Your task to perform on an android device: Go to Google Image 0: 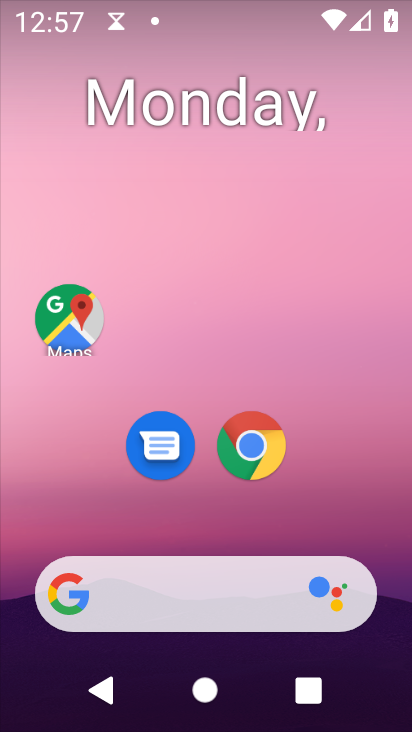
Step 0: drag from (351, 600) to (205, 219)
Your task to perform on an android device: Go to Google Image 1: 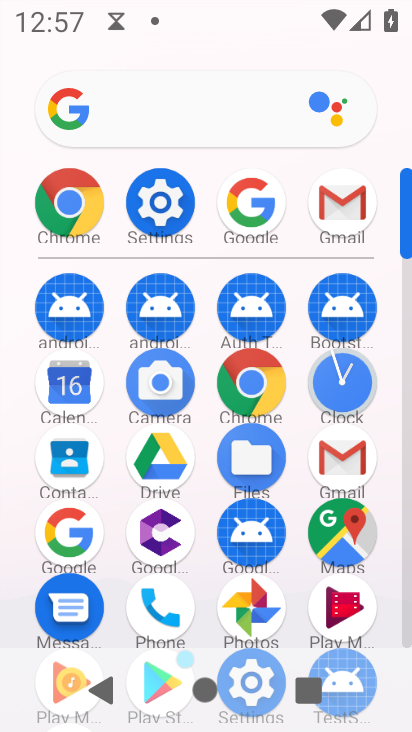
Step 1: click (249, 200)
Your task to perform on an android device: Go to Google Image 2: 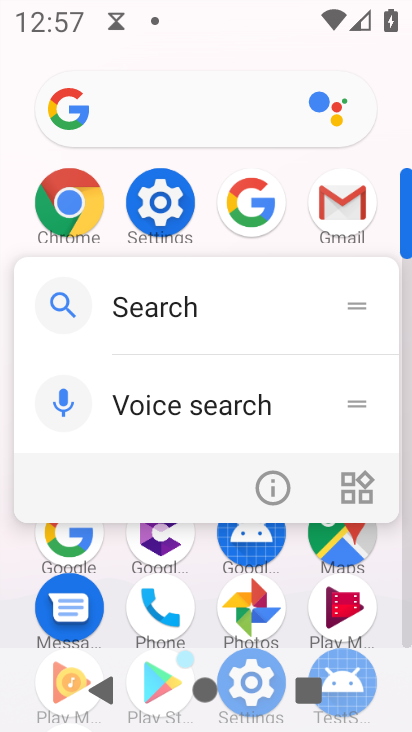
Step 2: click (259, 205)
Your task to perform on an android device: Go to Google Image 3: 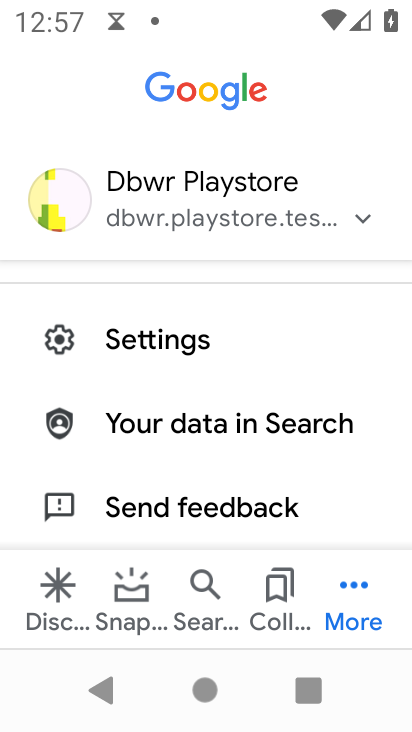
Step 3: drag from (238, 432) to (224, 149)
Your task to perform on an android device: Go to Google Image 4: 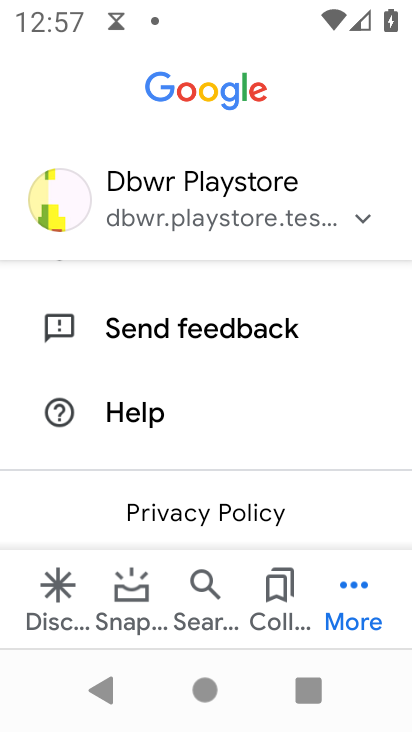
Step 4: drag from (262, 381) to (261, 64)
Your task to perform on an android device: Go to Google Image 5: 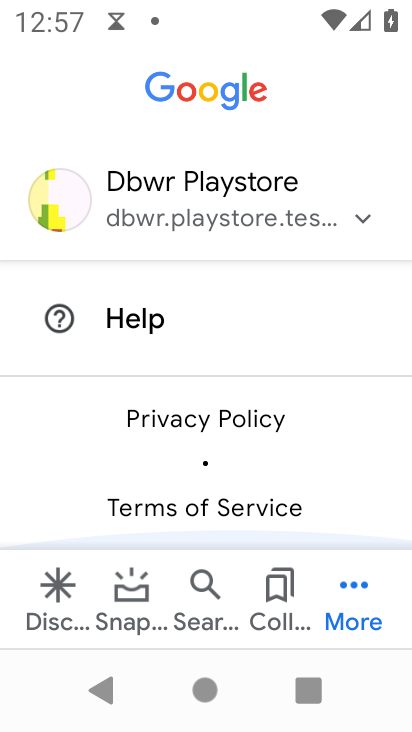
Step 5: drag from (255, 383) to (250, 66)
Your task to perform on an android device: Go to Google Image 6: 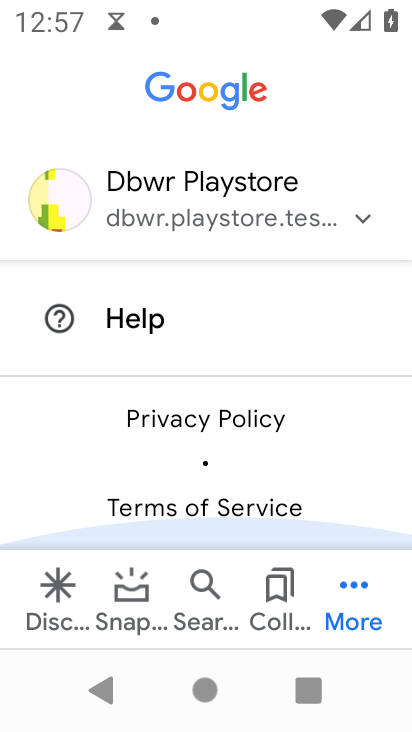
Step 6: drag from (253, 370) to (220, 81)
Your task to perform on an android device: Go to Google Image 7: 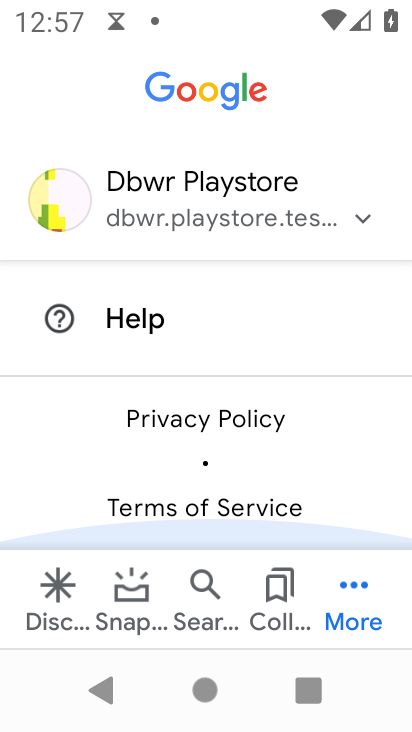
Step 7: drag from (239, 449) to (270, 112)
Your task to perform on an android device: Go to Google Image 8: 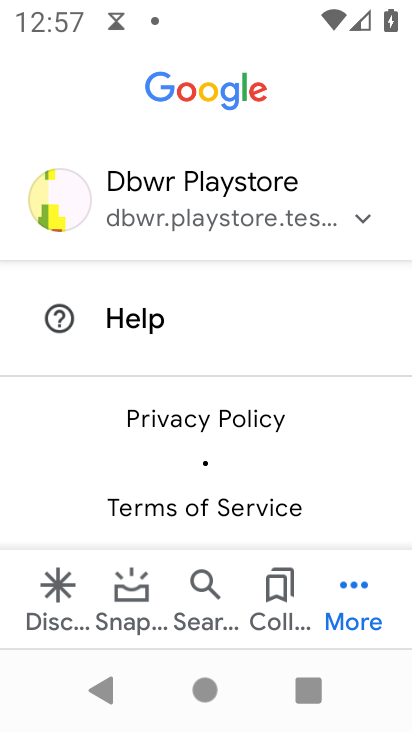
Step 8: press back button
Your task to perform on an android device: Go to Google Image 9: 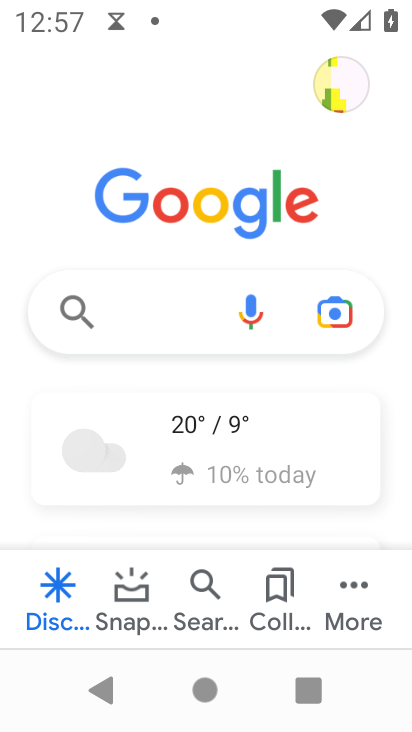
Step 9: click (347, 583)
Your task to perform on an android device: Go to Google Image 10: 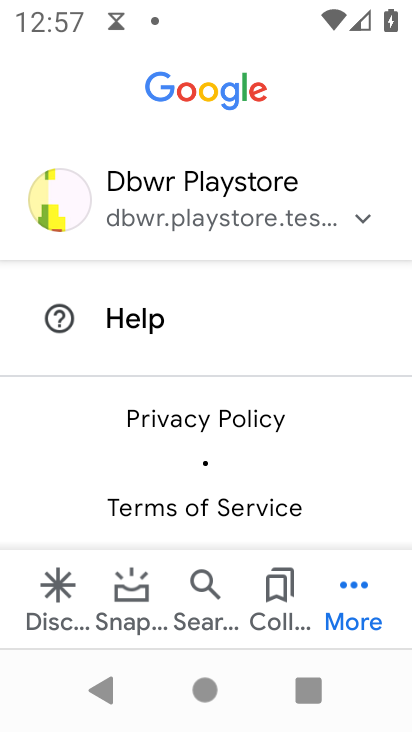
Step 10: click (348, 583)
Your task to perform on an android device: Go to Google Image 11: 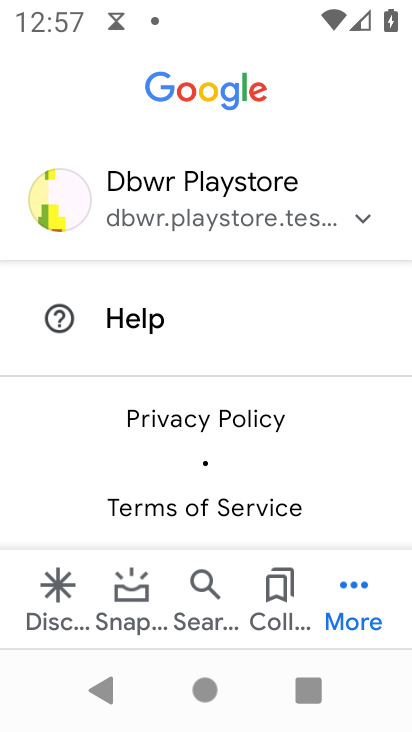
Step 11: click (349, 583)
Your task to perform on an android device: Go to Google Image 12: 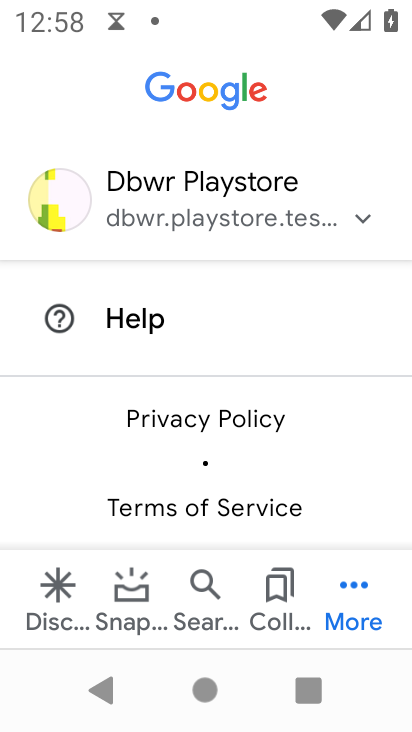
Step 12: drag from (248, 418) to (236, 273)
Your task to perform on an android device: Go to Google Image 13: 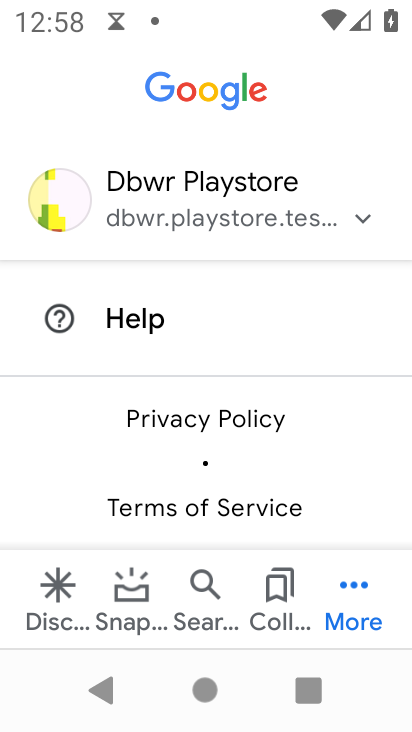
Step 13: drag from (276, 436) to (276, 114)
Your task to perform on an android device: Go to Google Image 14: 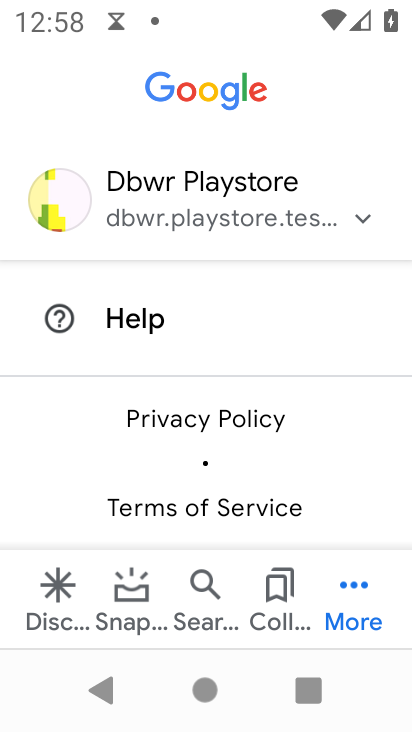
Step 14: click (228, 148)
Your task to perform on an android device: Go to Google Image 15: 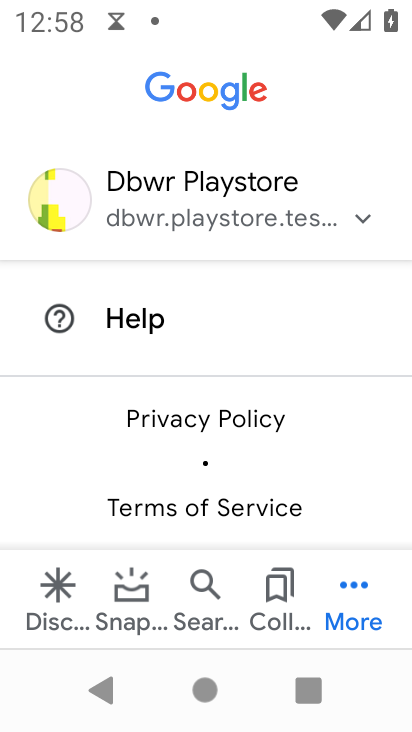
Step 15: drag from (239, 360) to (239, 41)
Your task to perform on an android device: Go to Google Image 16: 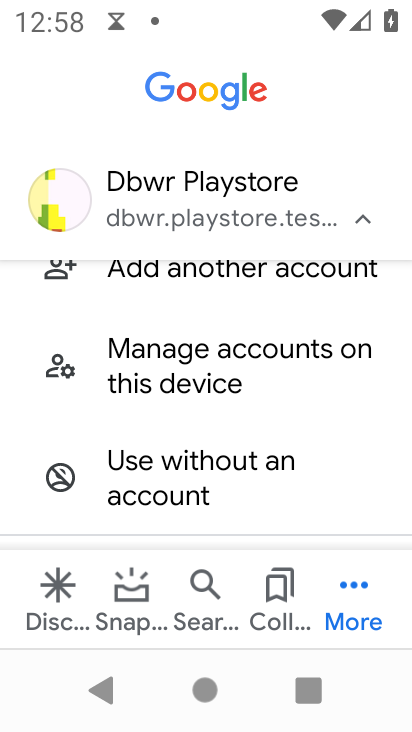
Step 16: drag from (217, 421) to (311, 24)
Your task to perform on an android device: Go to Google Image 17: 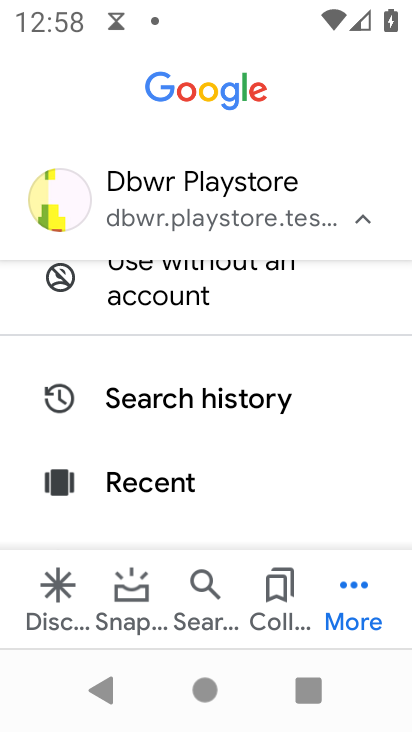
Step 17: drag from (253, 315) to (224, 117)
Your task to perform on an android device: Go to Google Image 18: 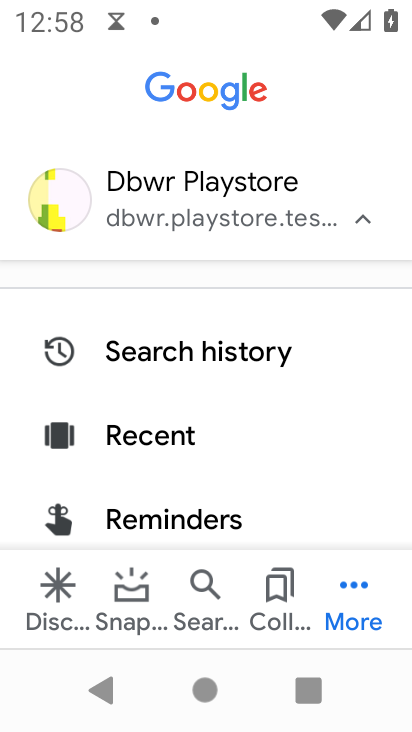
Step 18: drag from (217, 327) to (190, 24)
Your task to perform on an android device: Go to Google Image 19: 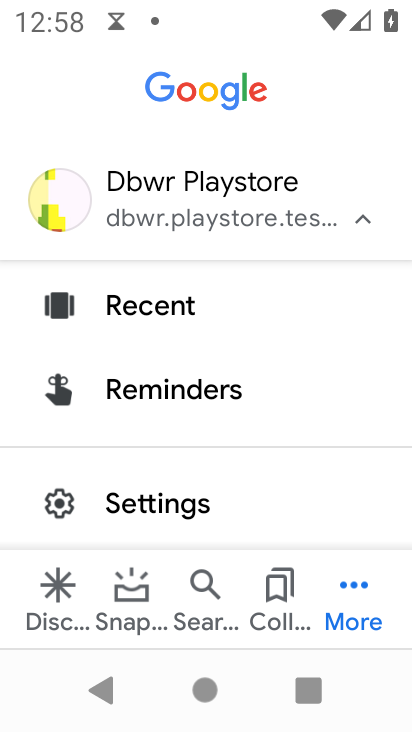
Step 19: drag from (177, 434) to (248, 93)
Your task to perform on an android device: Go to Google Image 20: 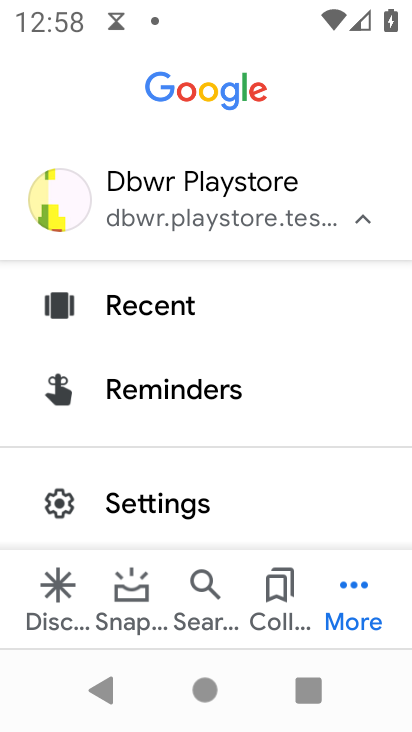
Step 20: drag from (337, 347) to (339, 95)
Your task to perform on an android device: Go to Google Image 21: 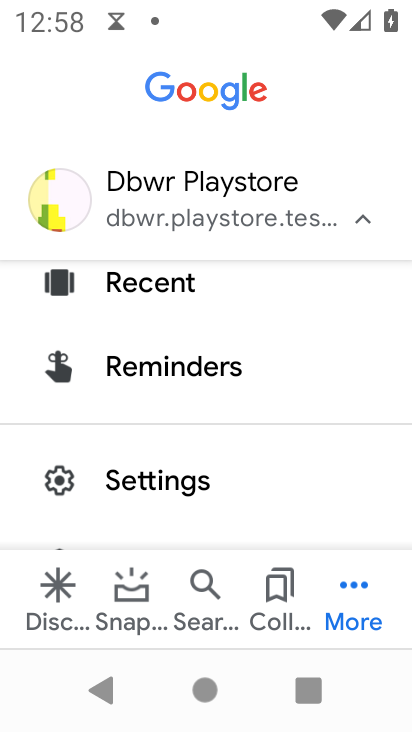
Step 21: drag from (259, 444) to (293, 135)
Your task to perform on an android device: Go to Google Image 22: 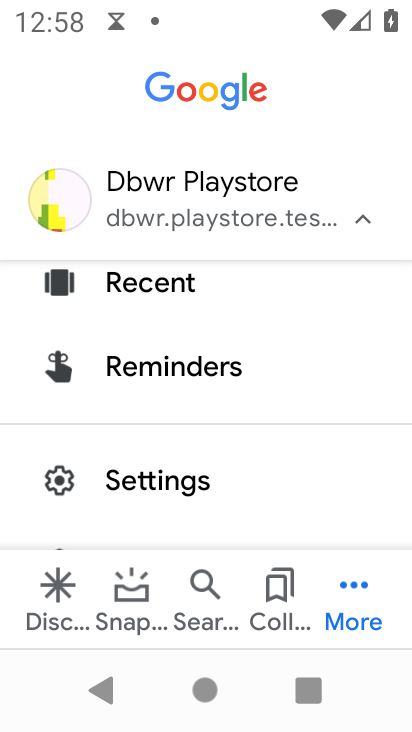
Step 22: click (164, 468)
Your task to perform on an android device: Go to Google Image 23: 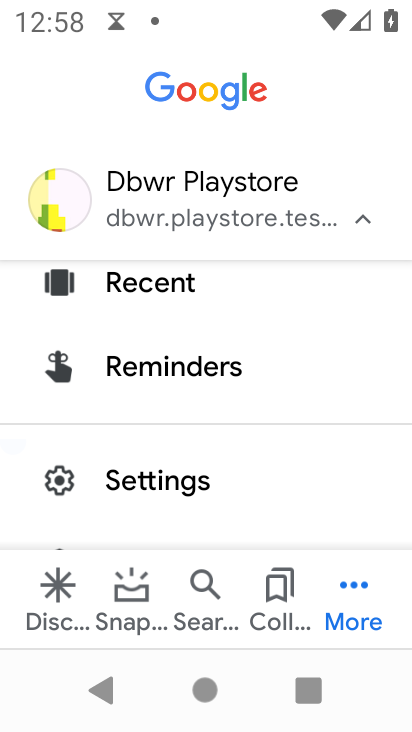
Step 23: click (164, 468)
Your task to perform on an android device: Go to Google Image 24: 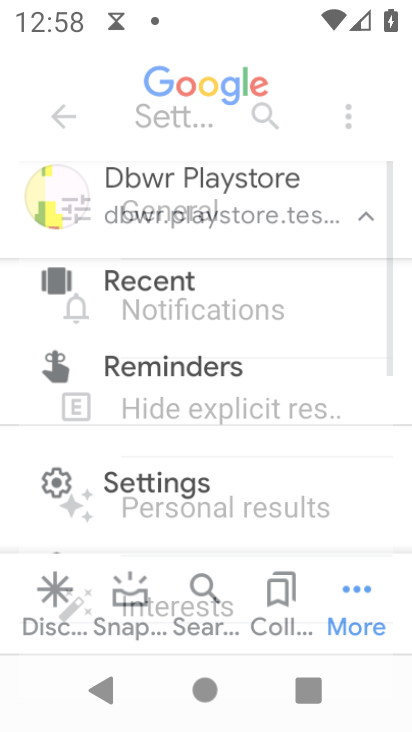
Step 24: click (165, 471)
Your task to perform on an android device: Go to Google Image 25: 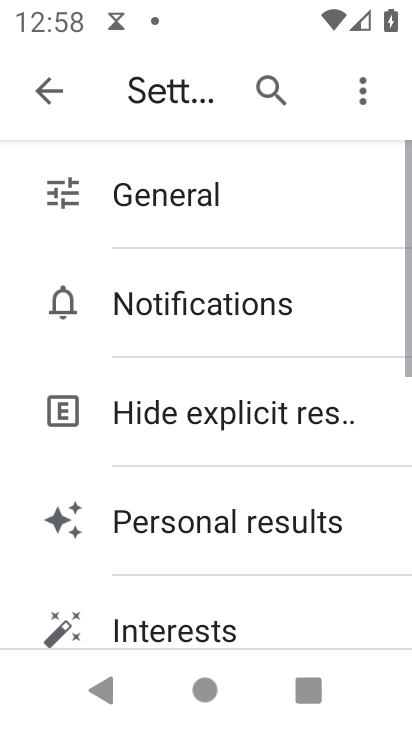
Step 25: click (165, 471)
Your task to perform on an android device: Go to Google Image 26: 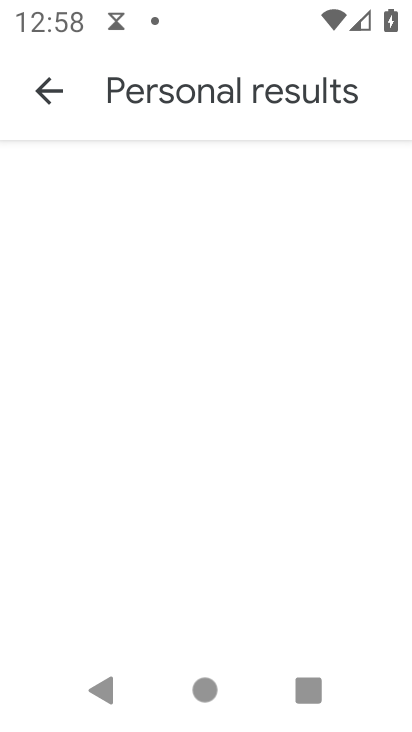
Step 26: task complete